Your task to perform on an android device: install app "Pandora - Music & Podcasts" Image 0: 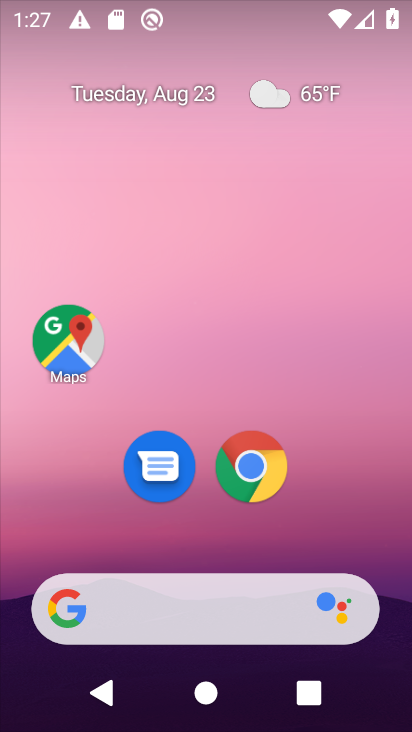
Step 0: drag from (185, 545) to (196, 143)
Your task to perform on an android device: install app "Pandora - Music & Podcasts" Image 1: 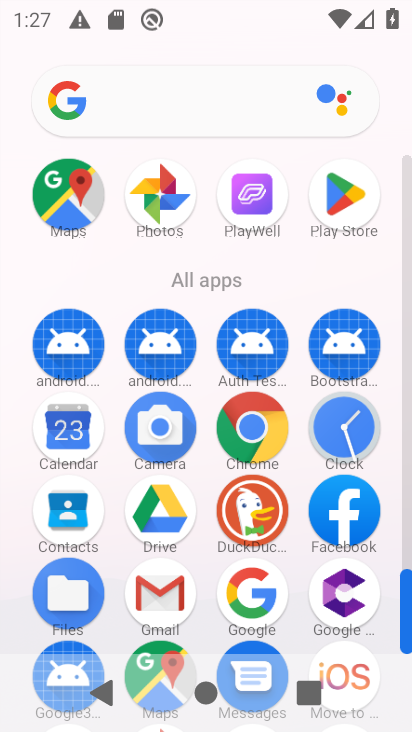
Step 1: click (325, 182)
Your task to perform on an android device: install app "Pandora - Music & Podcasts" Image 2: 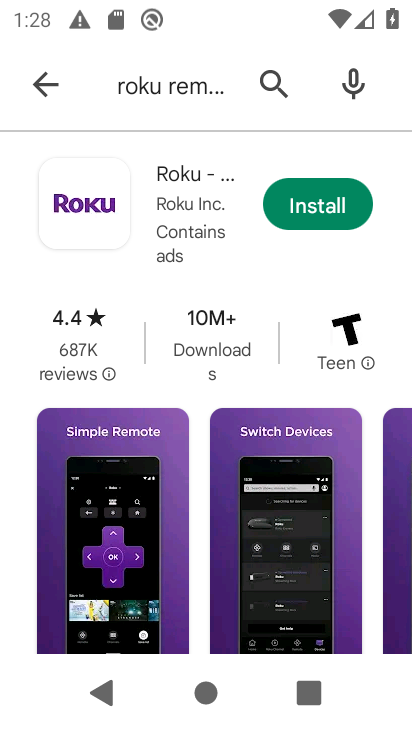
Step 2: click (55, 78)
Your task to perform on an android device: install app "Pandora - Music & Podcasts" Image 3: 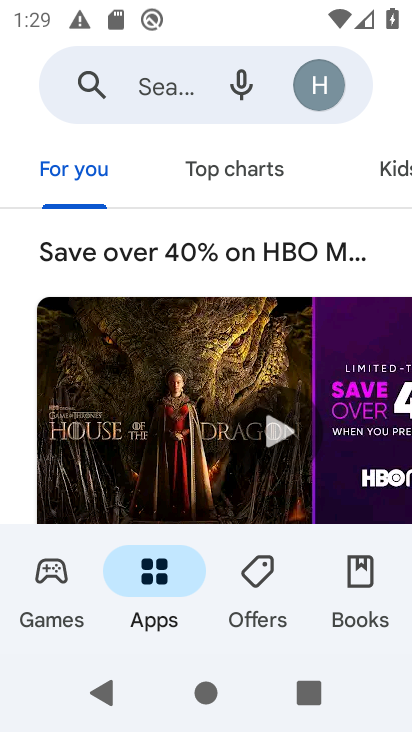
Step 3: click (204, 85)
Your task to perform on an android device: install app "Pandora - Music & Podcasts" Image 4: 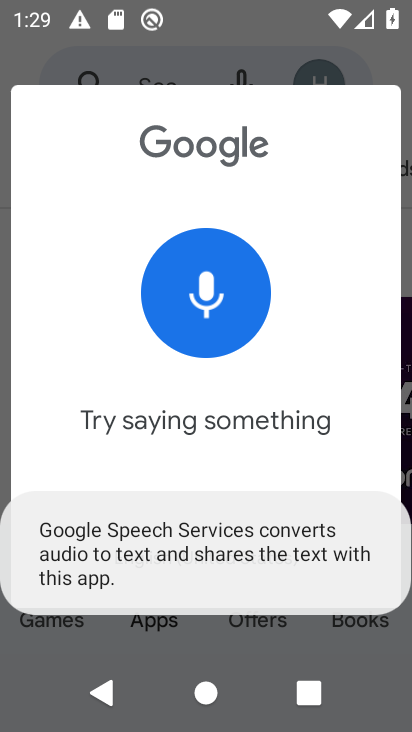
Step 4: type "Pandora "
Your task to perform on an android device: install app "Pandora - Music & Podcasts" Image 5: 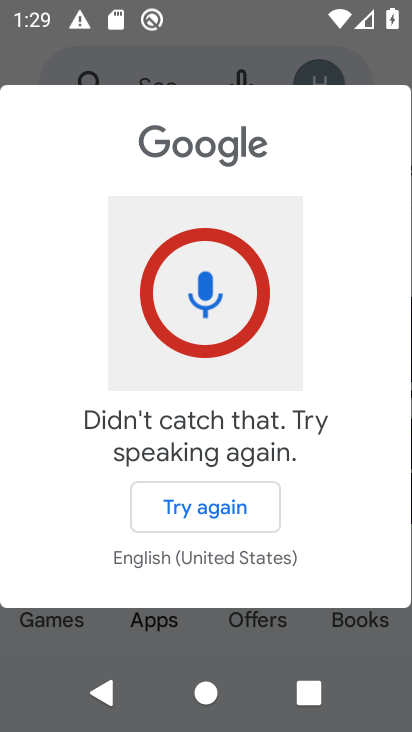
Step 5: click (197, 38)
Your task to perform on an android device: install app "Pandora - Music & Podcasts" Image 6: 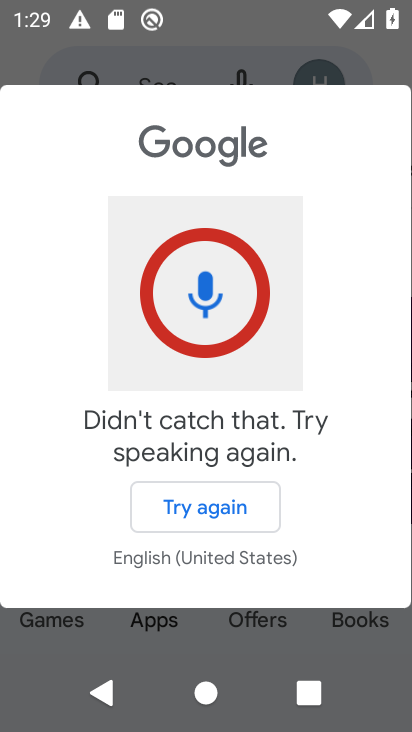
Step 6: click (343, 652)
Your task to perform on an android device: install app "Pandora - Music & Podcasts" Image 7: 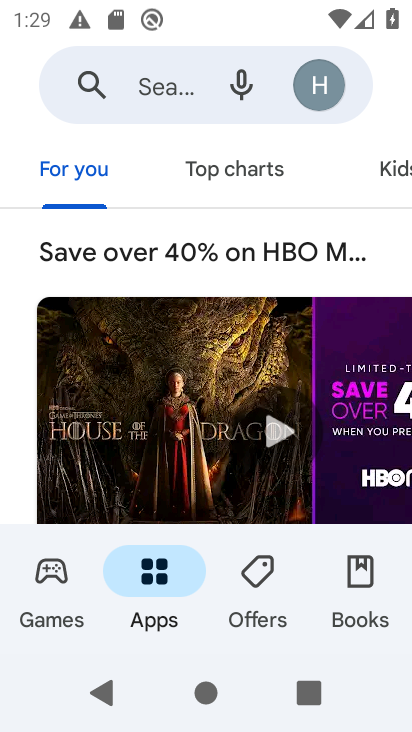
Step 7: click (152, 75)
Your task to perform on an android device: install app "Pandora - Music & Podcasts" Image 8: 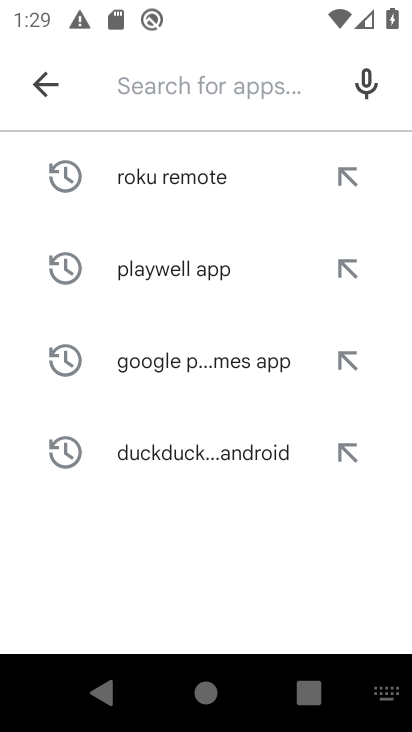
Step 8: type "Pandora "
Your task to perform on an android device: install app "Pandora - Music & Podcasts" Image 9: 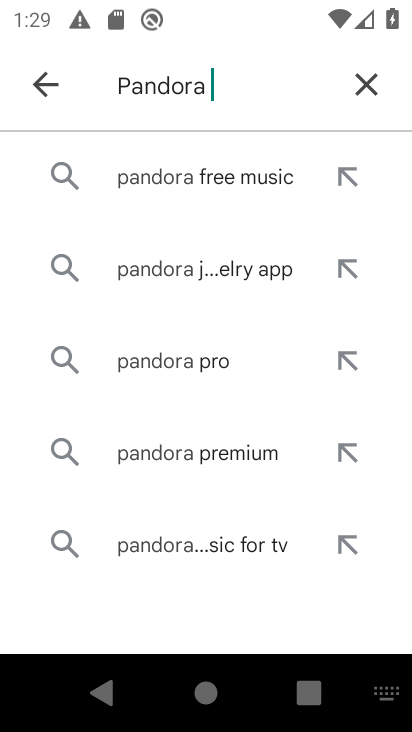
Step 9: click (161, 192)
Your task to perform on an android device: install app "Pandora - Music & Podcasts" Image 10: 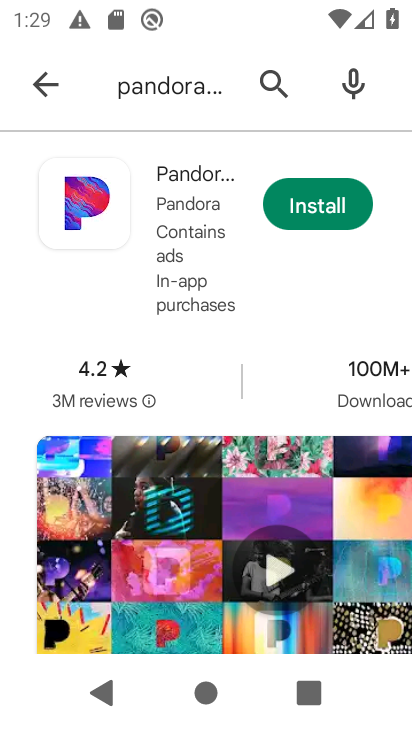
Step 10: click (313, 203)
Your task to perform on an android device: install app "Pandora - Music & Podcasts" Image 11: 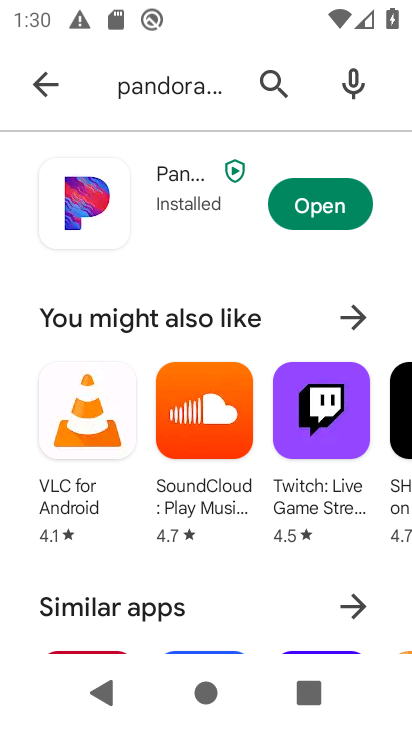
Step 11: click (315, 210)
Your task to perform on an android device: install app "Pandora - Music & Podcasts" Image 12: 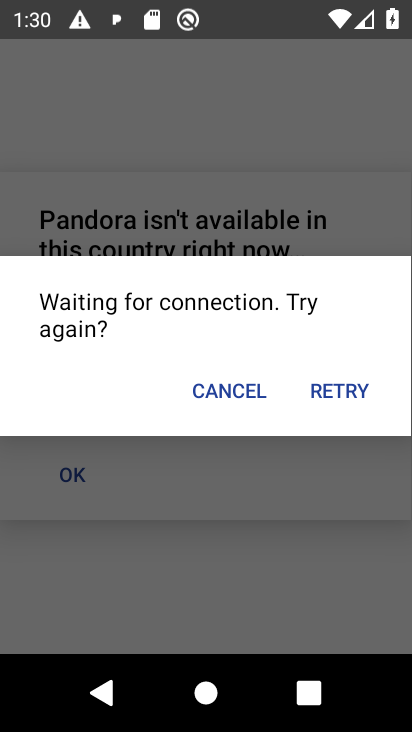
Step 12: task complete